Your task to perform on an android device: Open the calendar app, open the side menu, and click the "Day" option Image 0: 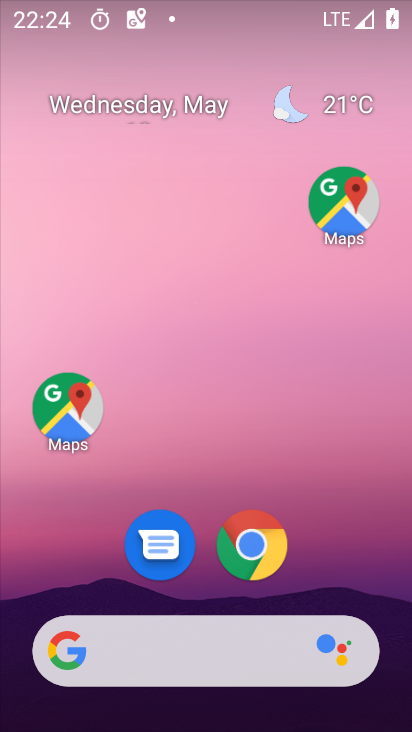
Step 0: drag from (338, 570) to (253, 48)
Your task to perform on an android device: Open the calendar app, open the side menu, and click the "Day" option Image 1: 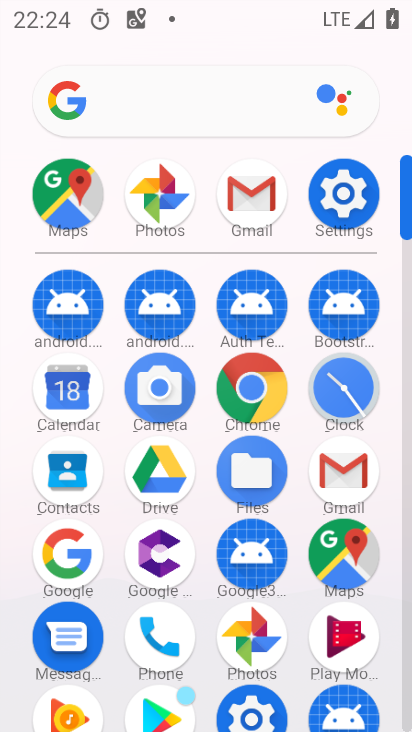
Step 1: click (54, 390)
Your task to perform on an android device: Open the calendar app, open the side menu, and click the "Day" option Image 2: 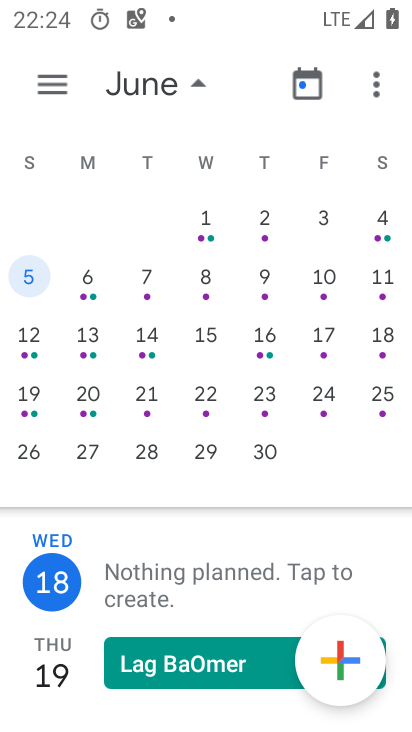
Step 2: click (44, 88)
Your task to perform on an android device: Open the calendar app, open the side menu, and click the "Day" option Image 3: 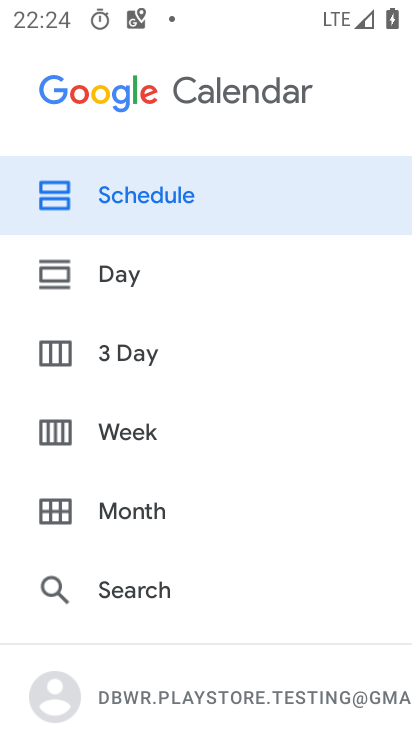
Step 3: click (152, 288)
Your task to perform on an android device: Open the calendar app, open the side menu, and click the "Day" option Image 4: 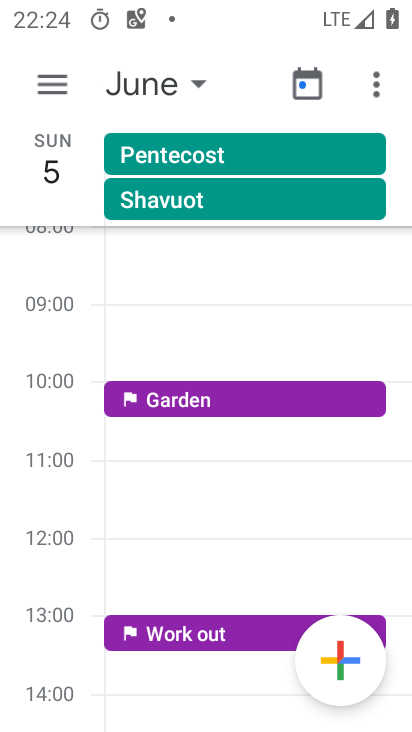
Step 4: task complete